Your task to perform on an android device: Show me popular videos on Youtube Image 0: 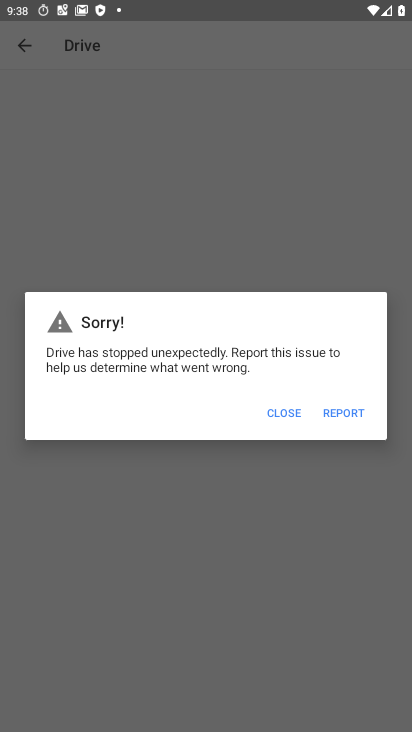
Step 0: press home button
Your task to perform on an android device: Show me popular videos on Youtube Image 1: 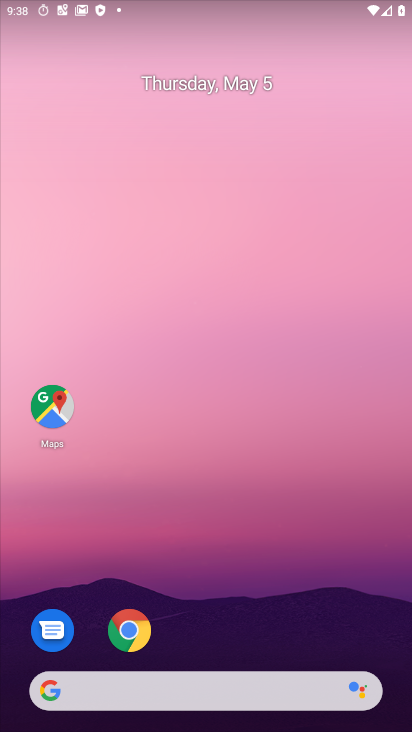
Step 1: drag from (198, 559) to (72, 54)
Your task to perform on an android device: Show me popular videos on Youtube Image 2: 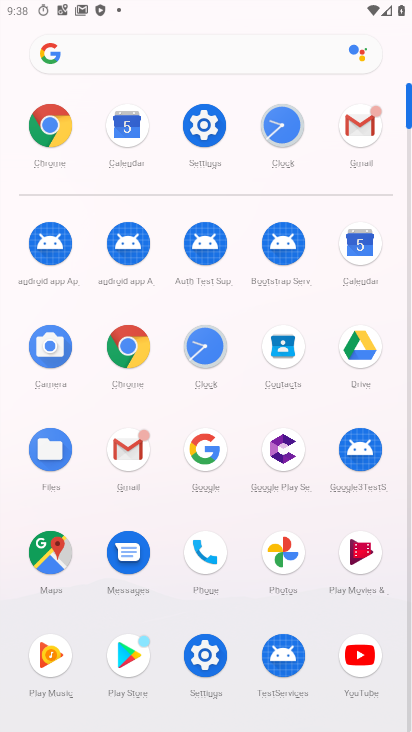
Step 2: click (353, 649)
Your task to perform on an android device: Show me popular videos on Youtube Image 3: 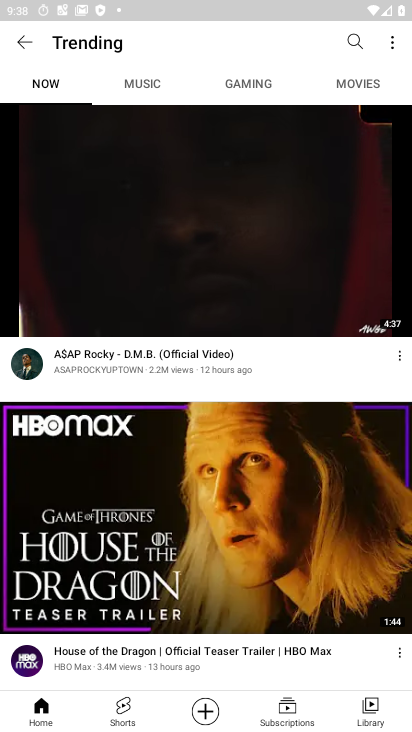
Step 3: task complete